Your task to perform on an android device: Open accessibility settings Image 0: 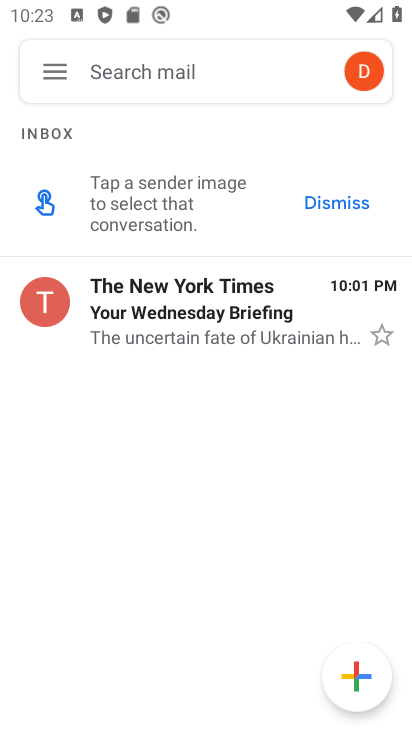
Step 0: press home button
Your task to perform on an android device: Open accessibility settings Image 1: 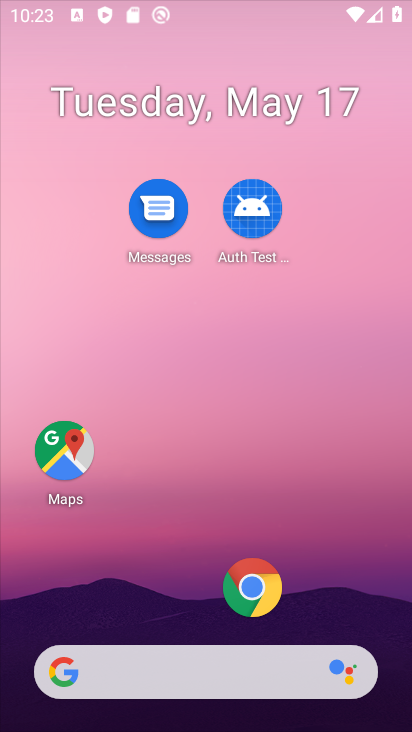
Step 1: drag from (161, 559) to (91, 92)
Your task to perform on an android device: Open accessibility settings Image 2: 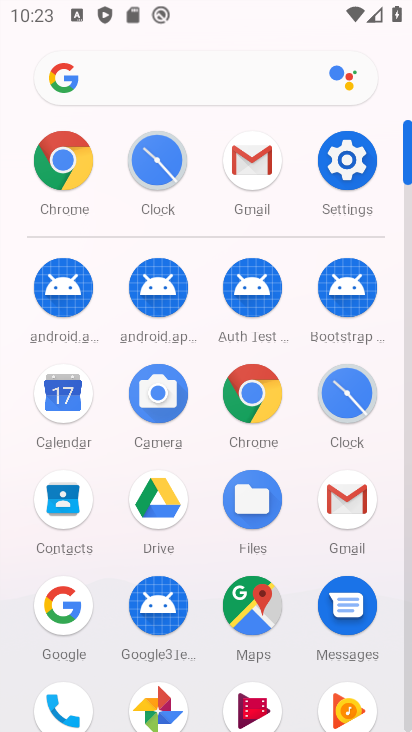
Step 2: click (339, 171)
Your task to perform on an android device: Open accessibility settings Image 3: 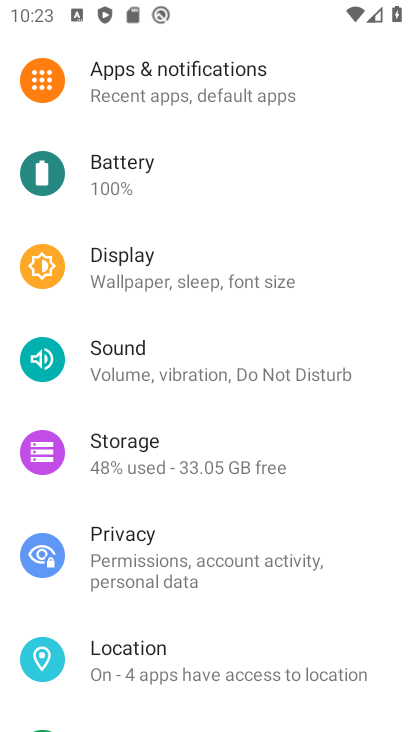
Step 3: drag from (267, 584) to (218, 329)
Your task to perform on an android device: Open accessibility settings Image 4: 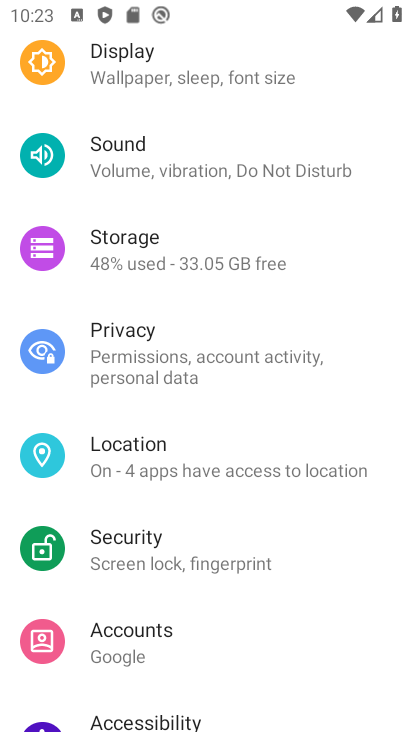
Step 4: drag from (193, 510) to (176, 311)
Your task to perform on an android device: Open accessibility settings Image 5: 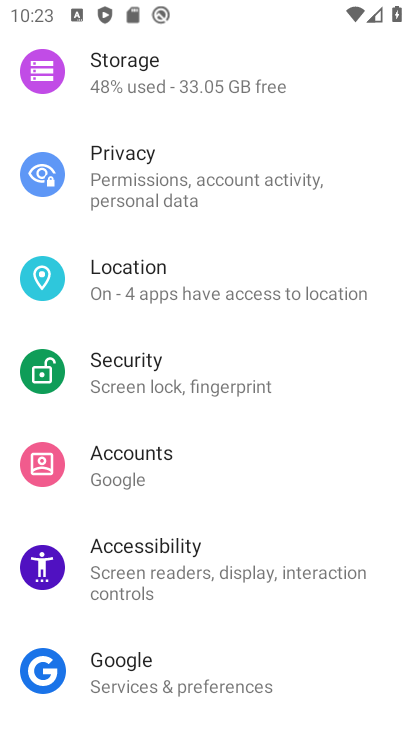
Step 5: click (177, 578)
Your task to perform on an android device: Open accessibility settings Image 6: 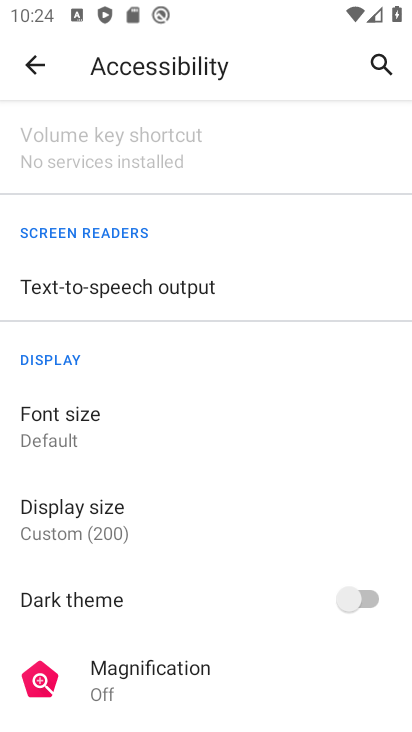
Step 6: task complete